Your task to perform on an android device: create a new album in the google photos Image 0: 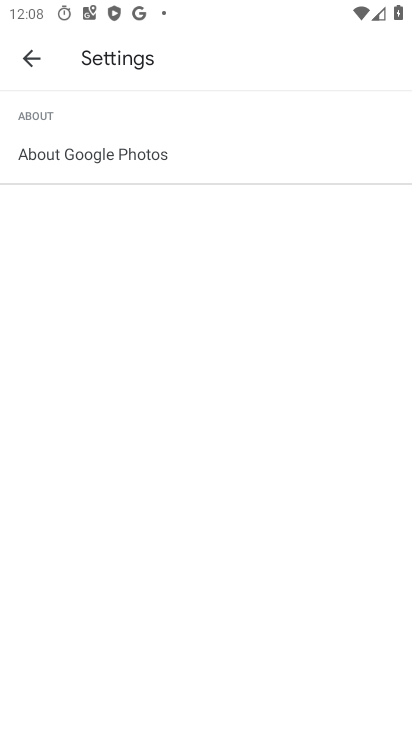
Step 0: press home button
Your task to perform on an android device: create a new album in the google photos Image 1: 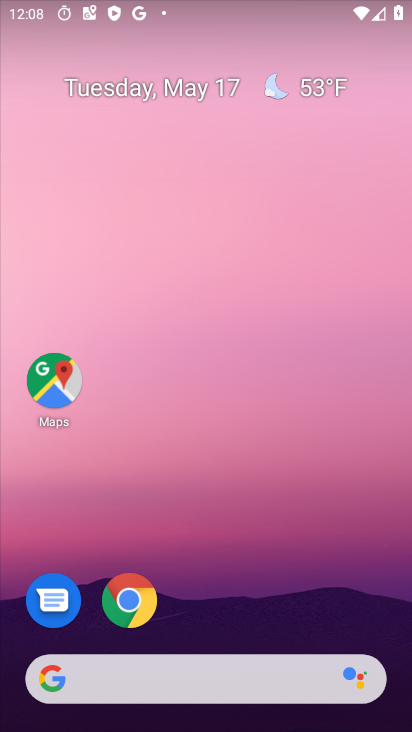
Step 1: drag from (239, 624) to (174, 55)
Your task to perform on an android device: create a new album in the google photos Image 2: 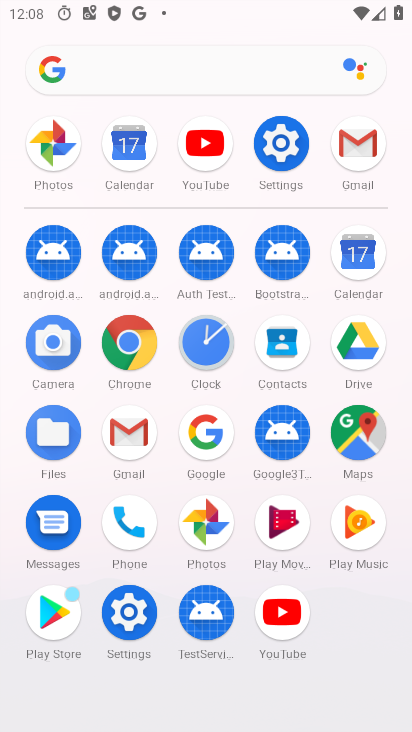
Step 2: click (213, 524)
Your task to perform on an android device: create a new album in the google photos Image 3: 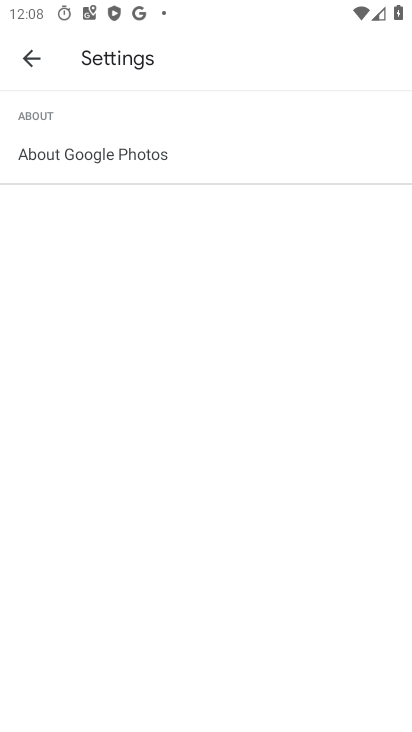
Step 3: click (27, 69)
Your task to perform on an android device: create a new album in the google photos Image 4: 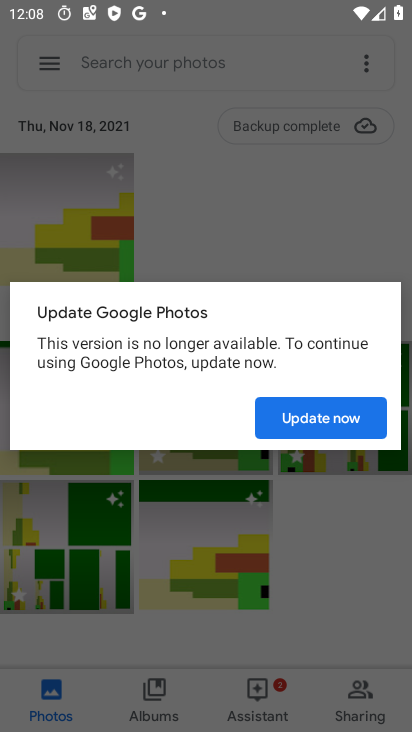
Step 4: click (348, 418)
Your task to perform on an android device: create a new album in the google photos Image 5: 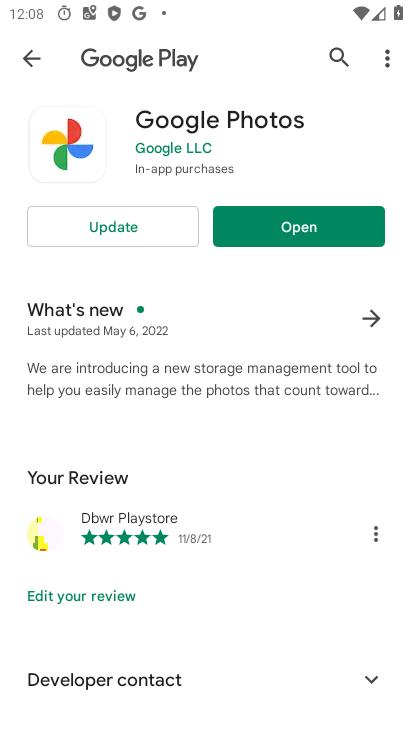
Step 5: click (77, 230)
Your task to perform on an android device: create a new album in the google photos Image 6: 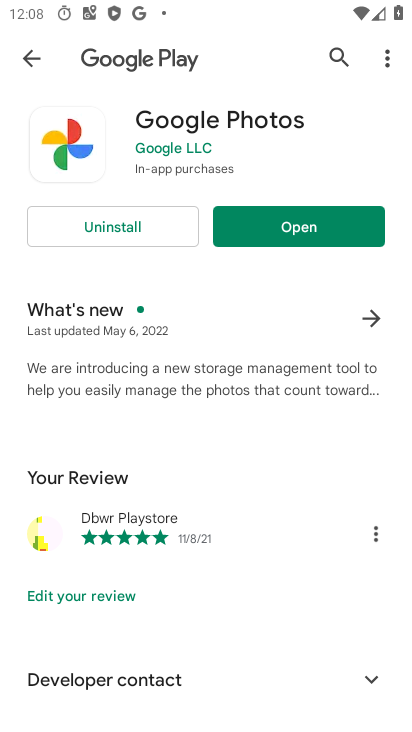
Step 6: click (327, 231)
Your task to perform on an android device: create a new album in the google photos Image 7: 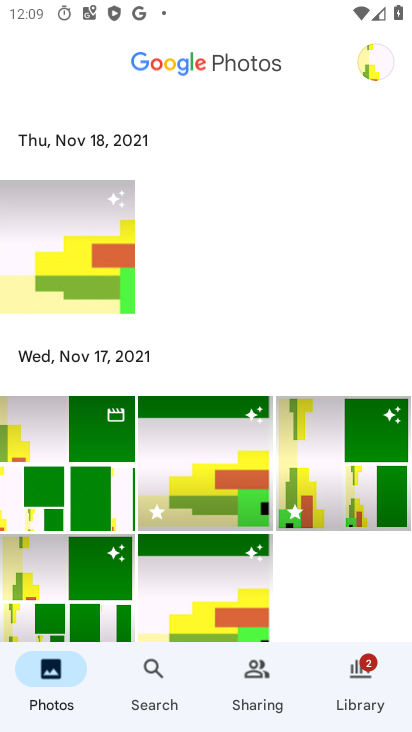
Step 7: click (339, 698)
Your task to perform on an android device: create a new album in the google photos Image 8: 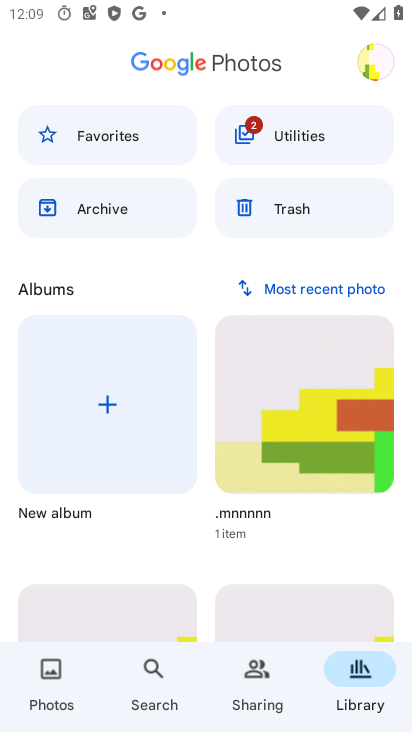
Step 8: click (91, 410)
Your task to perform on an android device: create a new album in the google photos Image 9: 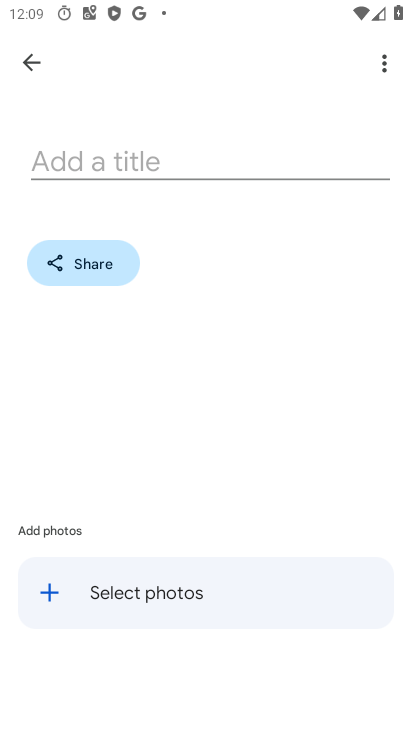
Step 9: click (82, 173)
Your task to perform on an android device: create a new album in the google photos Image 10: 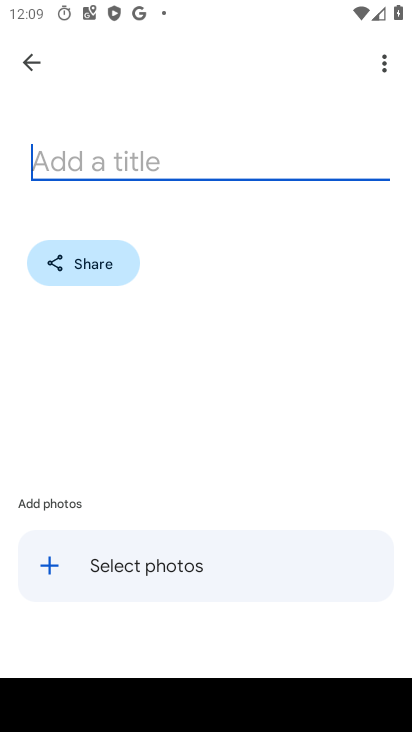
Step 10: type "asdfghjkl"
Your task to perform on an android device: create a new album in the google photos Image 11: 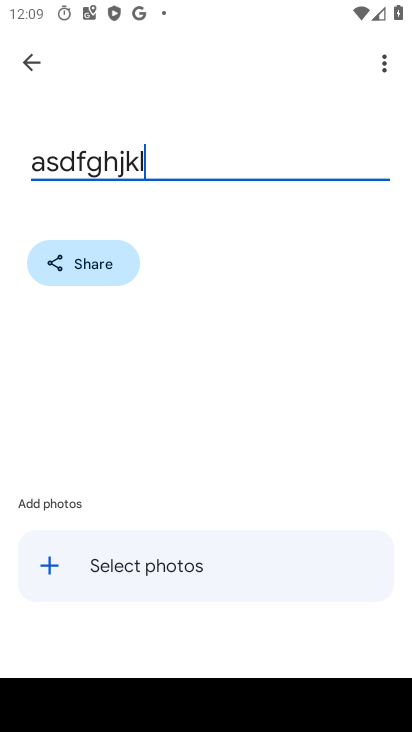
Step 11: click (47, 569)
Your task to perform on an android device: create a new album in the google photos Image 12: 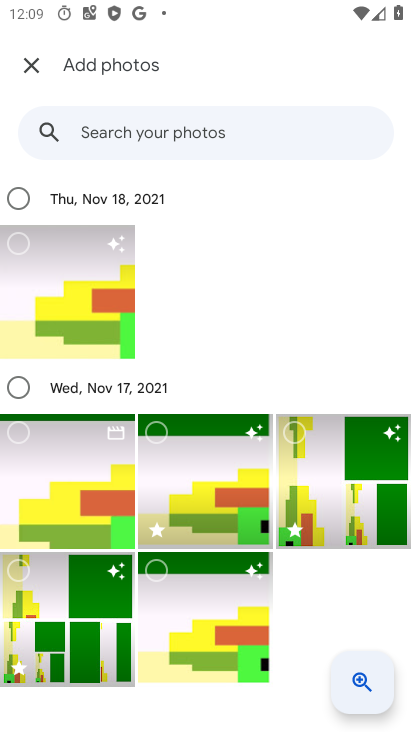
Step 12: click (73, 455)
Your task to perform on an android device: create a new album in the google photos Image 13: 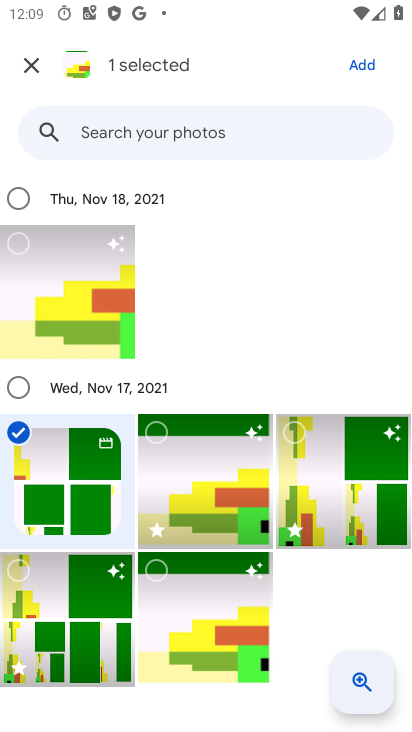
Step 13: click (365, 64)
Your task to perform on an android device: create a new album in the google photos Image 14: 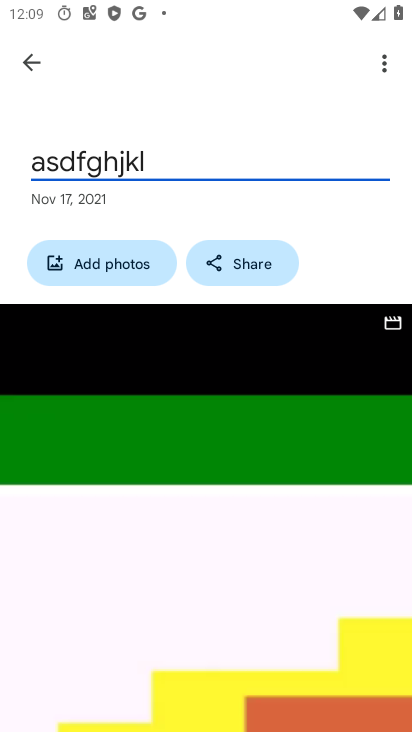
Step 14: task complete